Your task to perform on an android device: Open CNN.com Image 0: 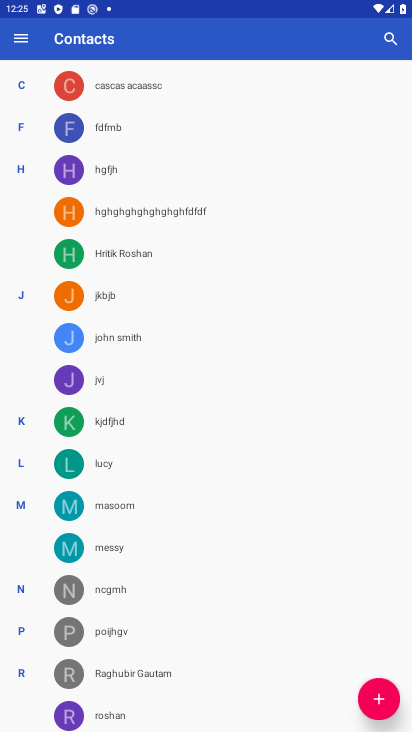
Step 0: press home button
Your task to perform on an android device: Open CNN.com Image 1: 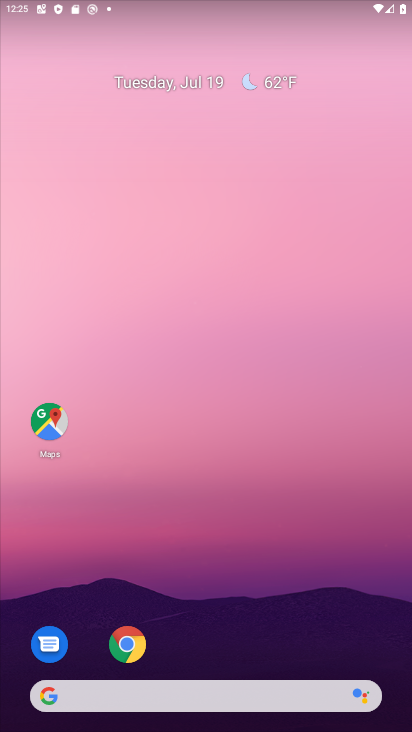
Step 1: click (124, 645)
Your task to perform on an android device: Open CNN.com Image 2: 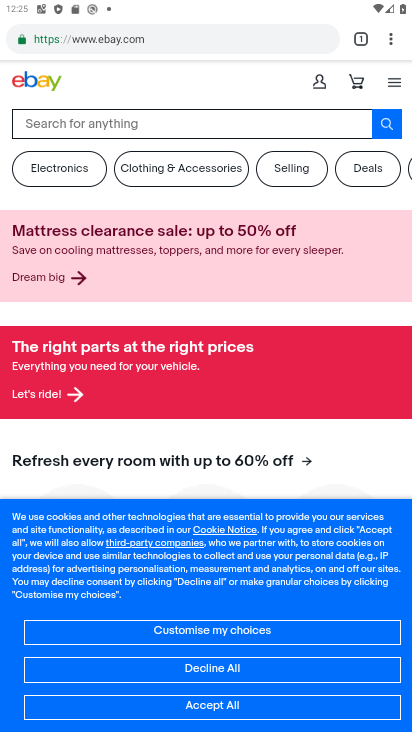
Step 2: click (392, 35)
Your task to perform on an android device: Open CNN.com Image 3: 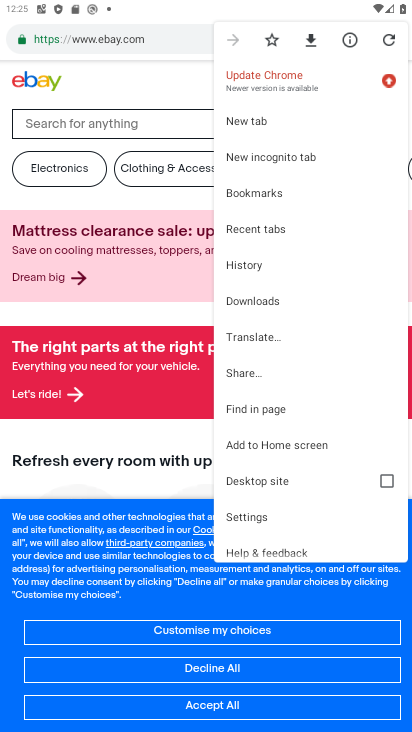
Step 3: click (247, 118)
Your task to perform on an android device: Open CNN.com Image 4: 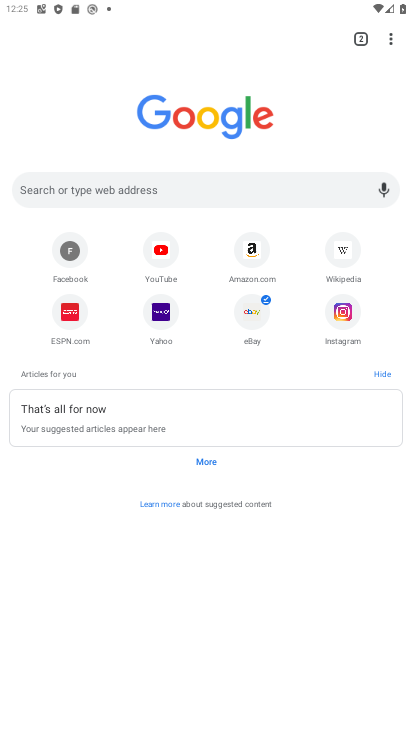
Step 4: click (118, 186)
Your task to perform on an android device: Open CNN.com Image 5: 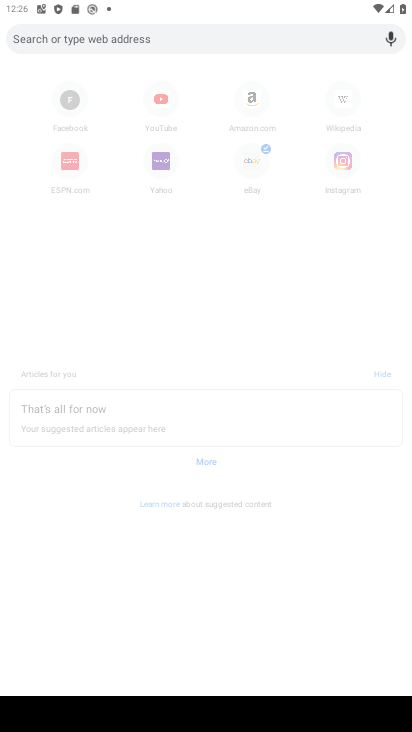
Step 5: type "cnn.com"
Your task to perform on an android device: Open CNN.com Image 6: 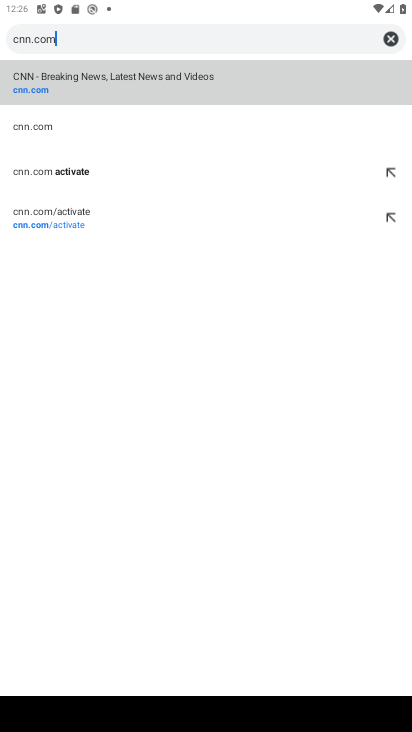
Step 6: click (76, 68)
Your task to perform on an android device: Open CNN.com Image 7: 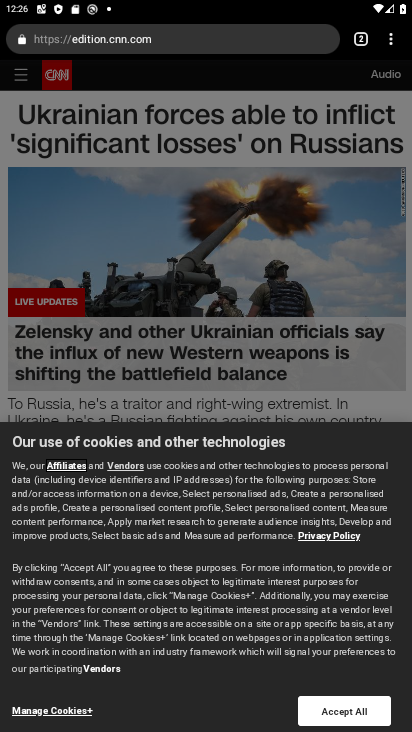
Step 7: task complete